Your task to perform on an android device: open app "Spotify" (install if not already installed) and enter user name: "infallible@icloud.com" and password: "implored" Image 0: 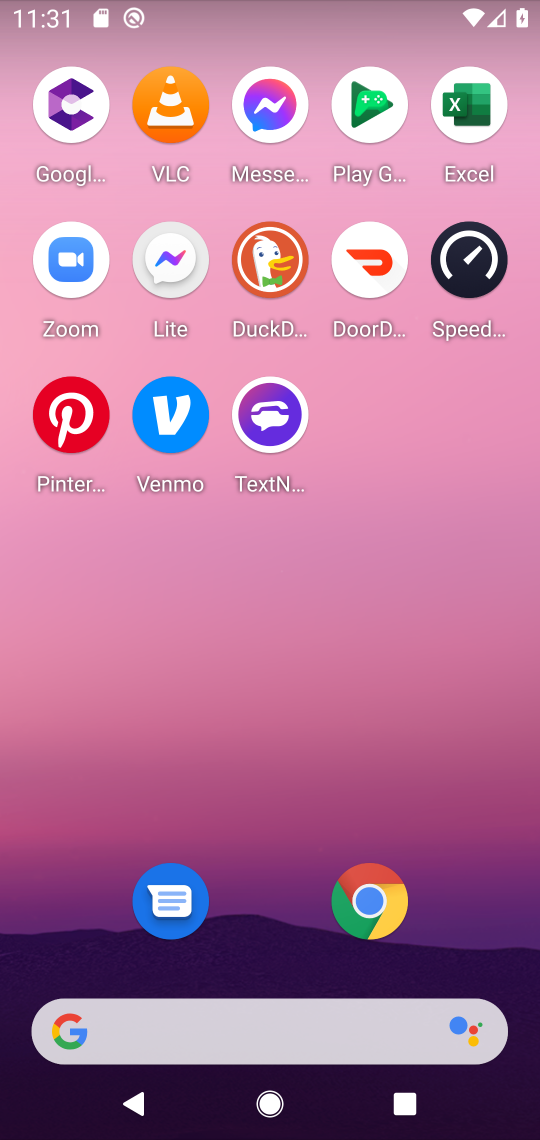
Step 0: drag from (305, 978) to (305, 240)
Your task to perform on an android device: open app "Spotify" (install if not already installed) and enter user name: "infallible@icloud.com" and password: "implored" Image 1: 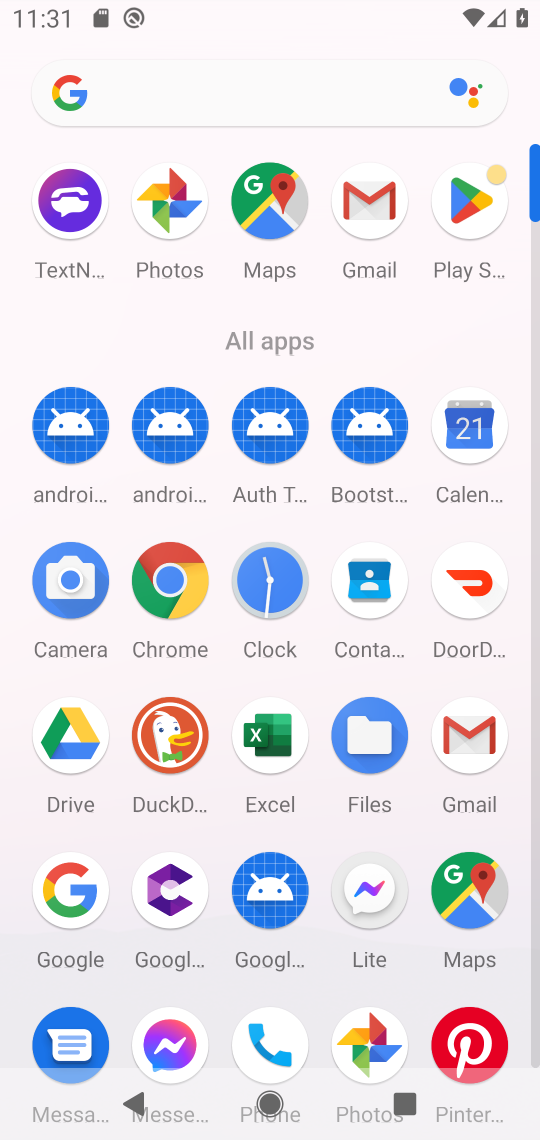
Step 1: click (455, 254)
Your task to perform on an android device: open app "Spotify" (install if not already installed) and enter user name: "infallible@icloud.com" and password: "implored" Image 2: 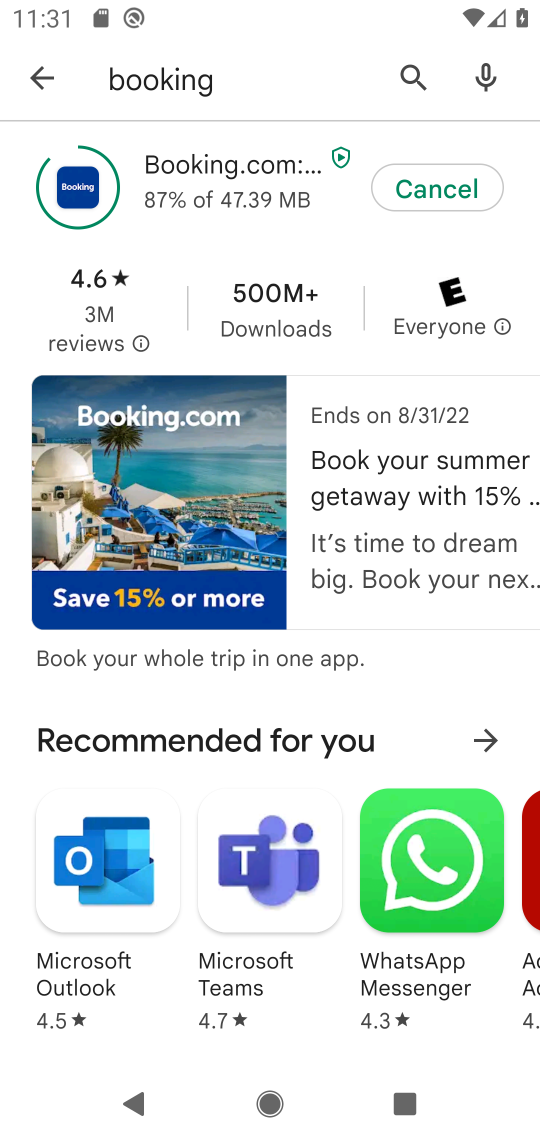
Step 2: click (419, 88)
Your task to perform on an android device: open app "Spotify" (install if not already installed) and enter user name: "infallible@icloud.com" and password: "implored" Image 3: 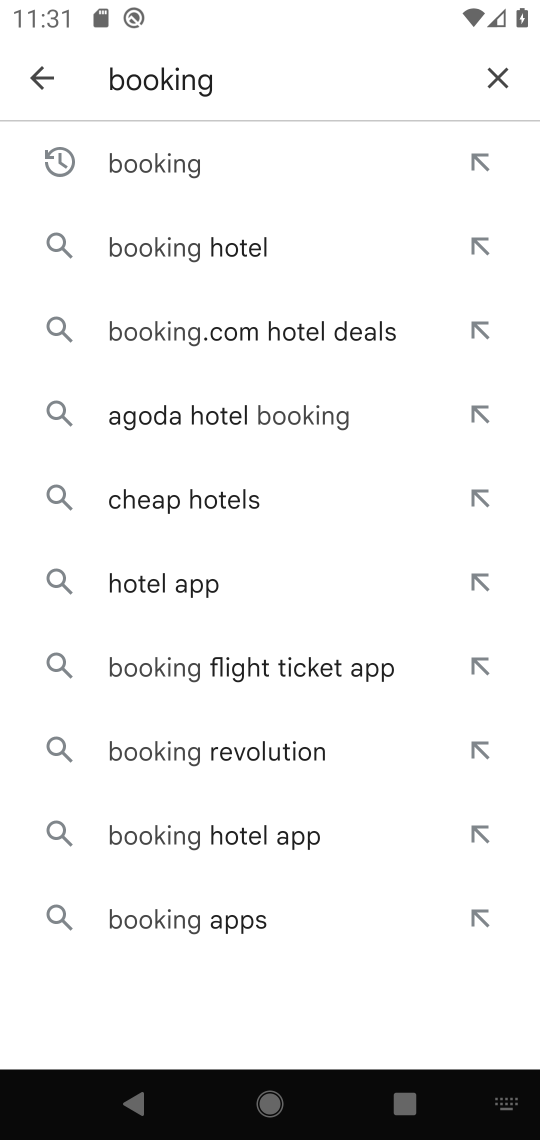
Step 3: click (477, 83)
Your task to perform on an android device: open app "Spotify" (install if not already installed) and enter user name: "infallible@icloud.com" and password: "implored" Image 4: 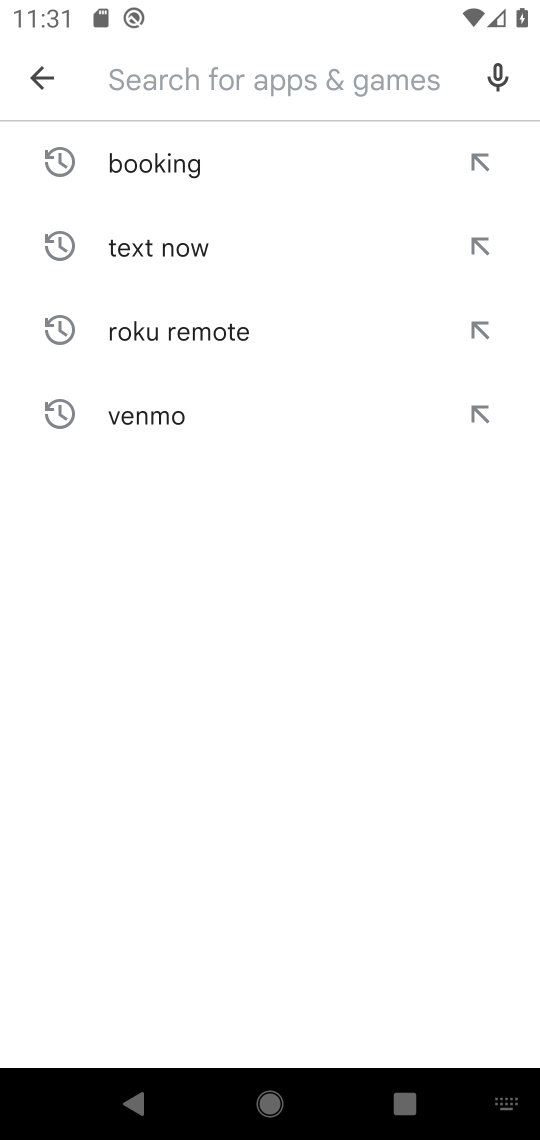
Step 4: type "spotify"
Your task to perform on an android device: open app "Spotify" (install if not already installed) and enter user name: "infallible@icloud.com" and password: "implored" Image 5: 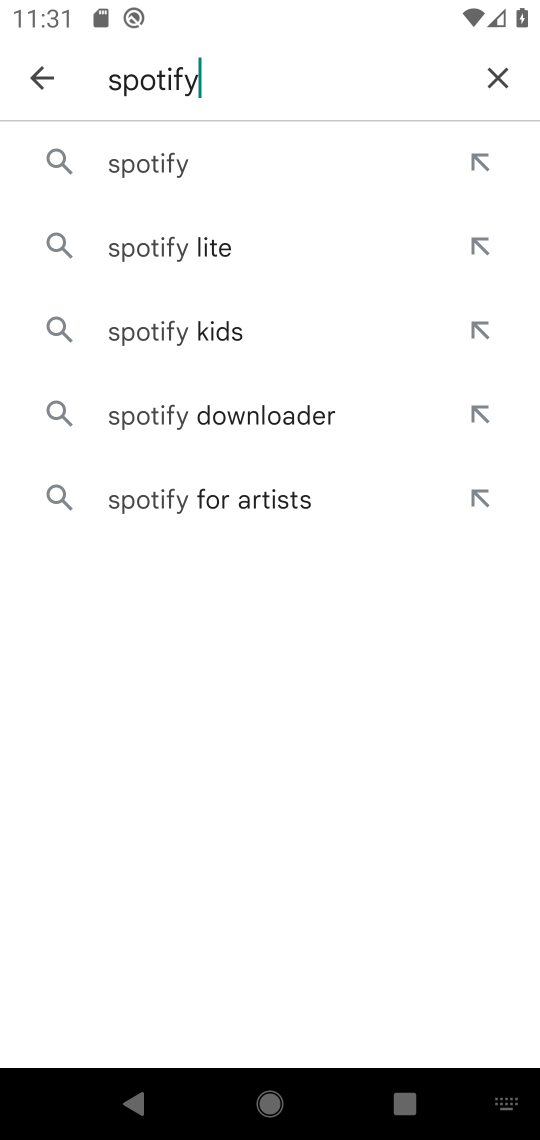
Step 5: click (246, 169)
Your task to perform on an android device: open app "Spotify" (install if not already installed) and enter user name: "infallible@icloud.com" and password: "implored" Image 6: 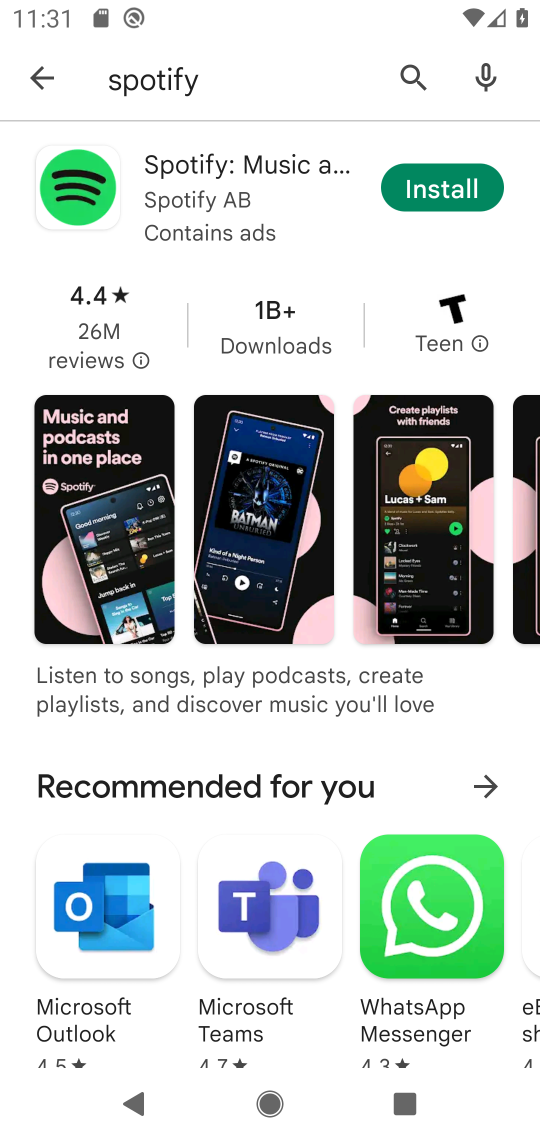
Step 6: click (432, 175)
Your task to perform on an android device: open app "Spotify" (install if not already installed) and enter user name: "infallible@icloud.com" and password: "implored" Image 7: 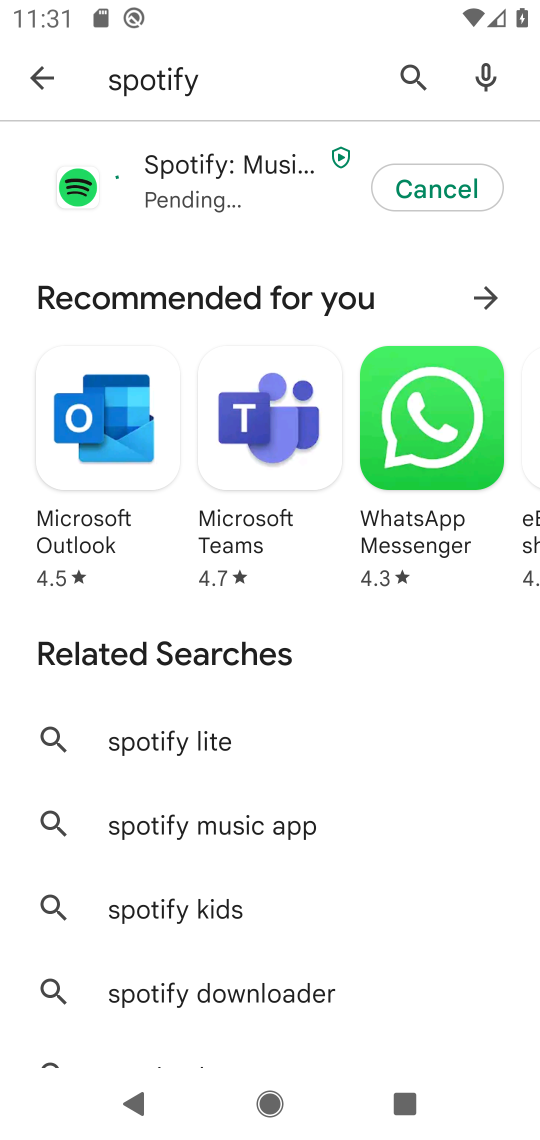
Step 7: task complete